Your task to perform on an android device: change keyboard looks Image 0: 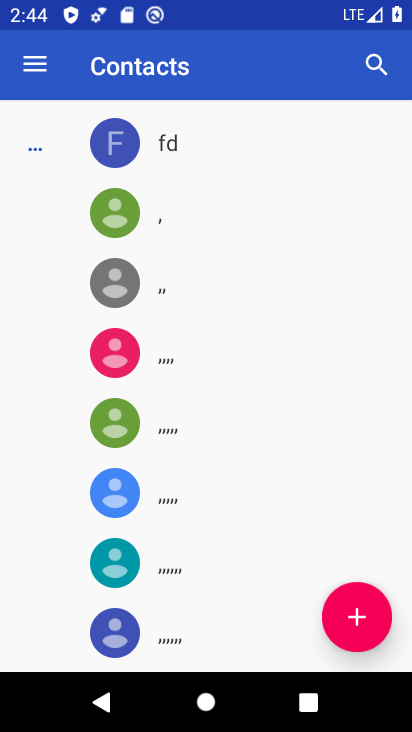
Step 0: press home button
Your task to perform on an android device: change keyboard looks Image 1: 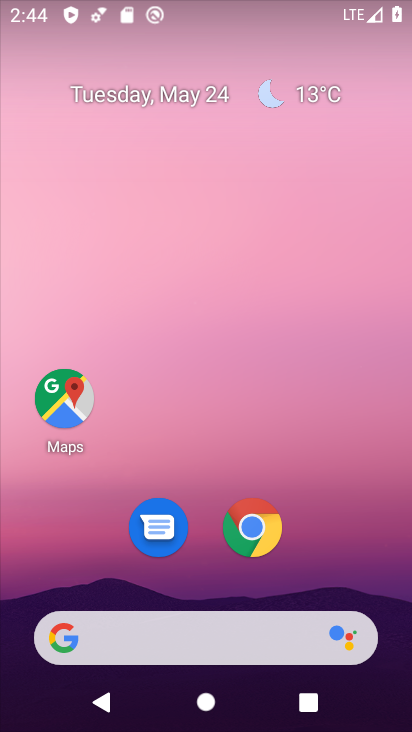
Step 1: drag from (193, 555) to (306, 20)
Your task to perform on an android device: change keyboard looks Image 2: 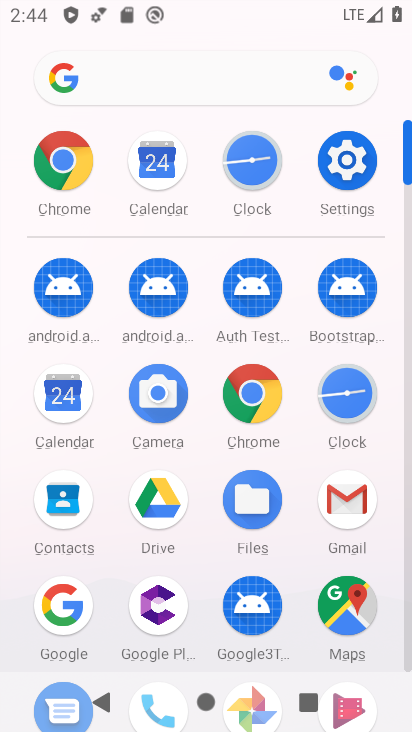
Step 2: click (346, 166)
Your task to perform on an android device: change keyboard looks Image 3: 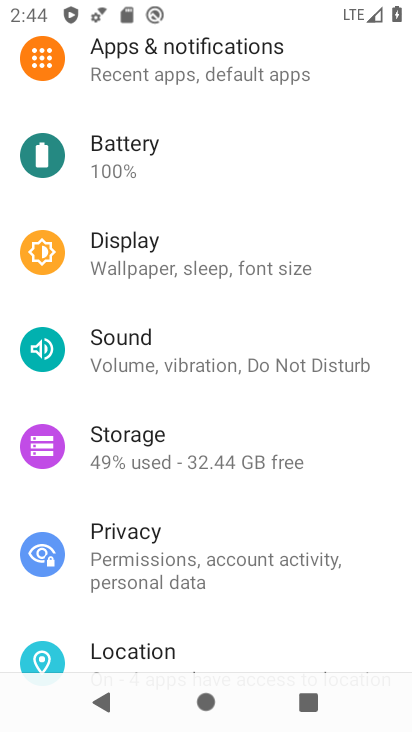
Step 3: drag from (250, 629) to (248, 325)
Your task to perform on an android device: change keyboard looks Image 4: 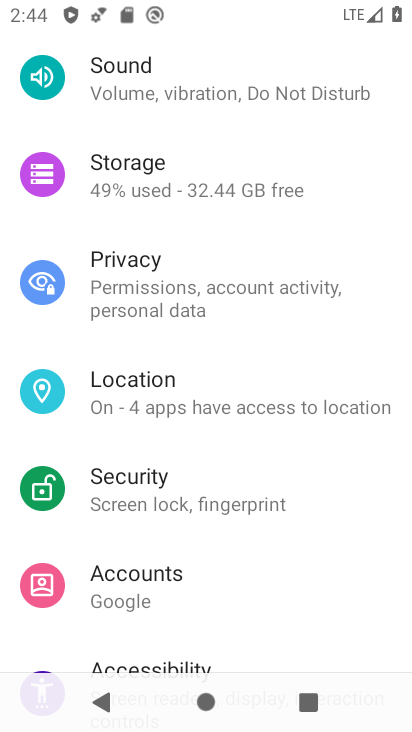
Step 4: drag from (265, 306) to (289, 240)
Your task to perform on an android device: change keyboard looks Image 5: 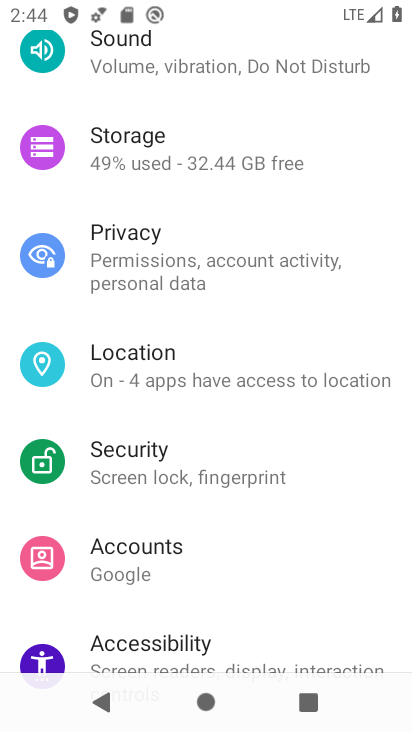
Step 5: drag from (196, 566) to (250, 158)
Your task to perform on an android device: change keyboard looks Image 6: 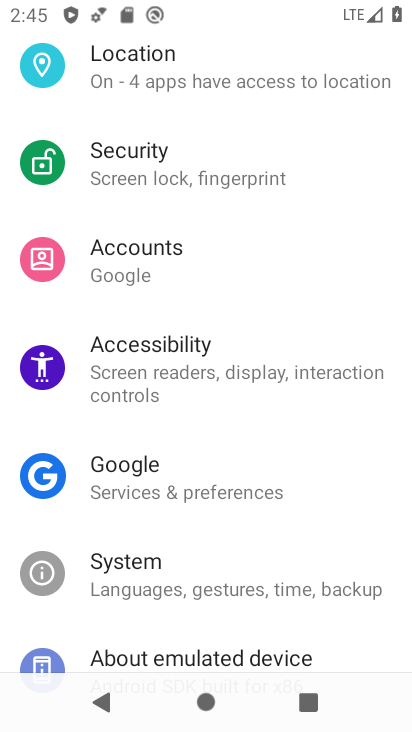
Step 6: click (202, 592)
Your task to perform on an android device: change keyboard looks Image 7: 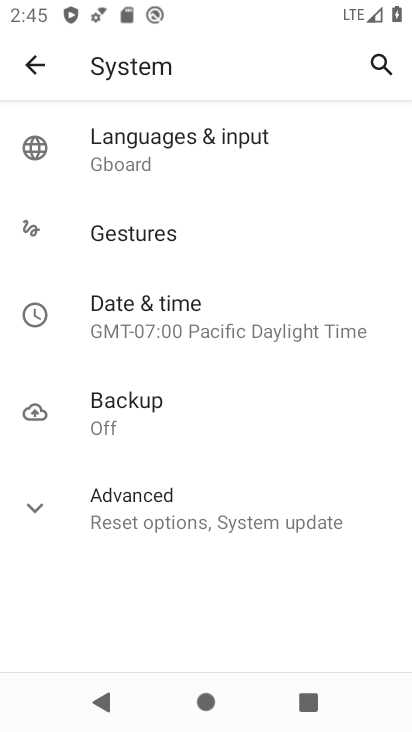
Step 7: click (206, 125)
Your task to perform on an android device: change keyboard looks Image 8: 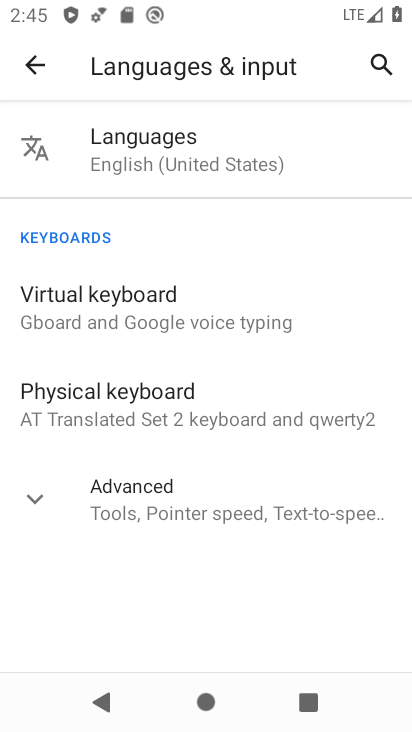
Step 8: click (140, 308)
Your task to perform on an android device: change keyboard looks Image 9: 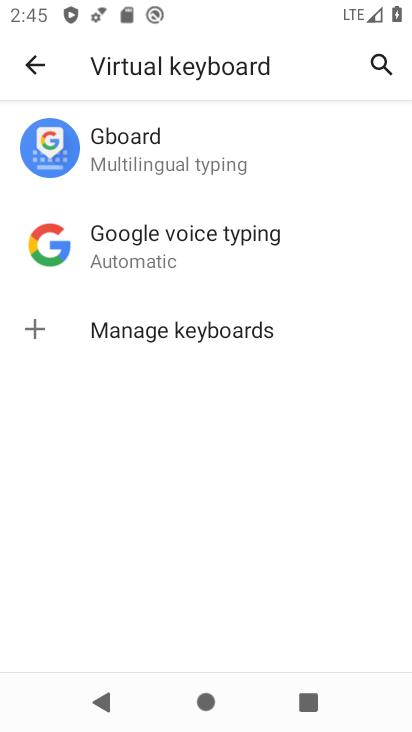
Step 9: click (162, 170)
Your task to perform on an android device: change keyboard looks Image 10: 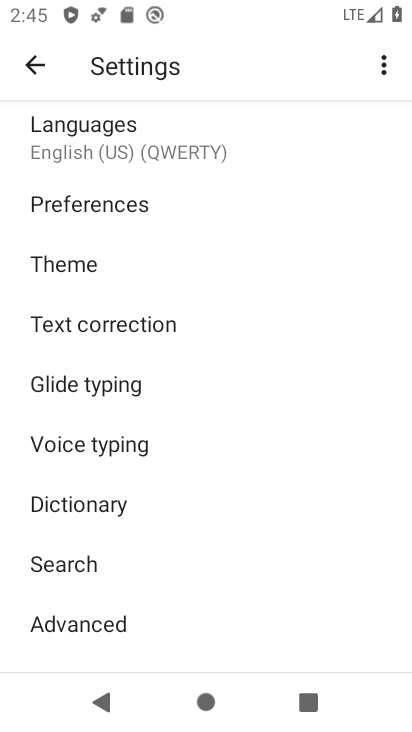
Step 10: click (103, 271)
Your task to perform on an android device: change keyboard looks Image 11: 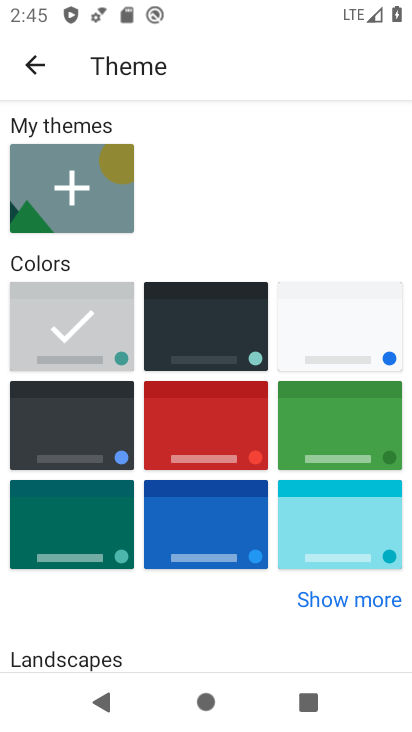
Step 11: click (219, 506)
Your task to perform on an android device: change keyboard looks Image 12: 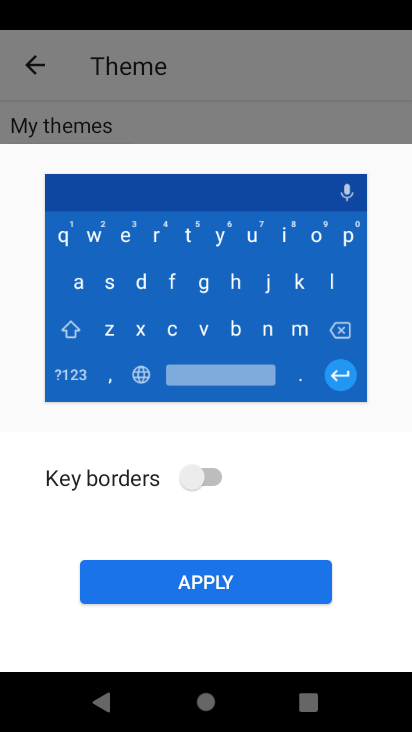
Step 12: click (192, 575)
Your task to perform on an android device: change keyboard looks Image 13: 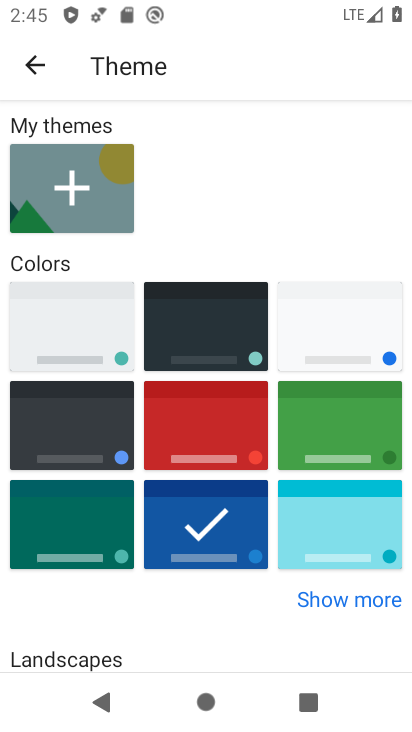
Step 13: task complete